Your task to perform on an android device: Show me recent news Image 0: 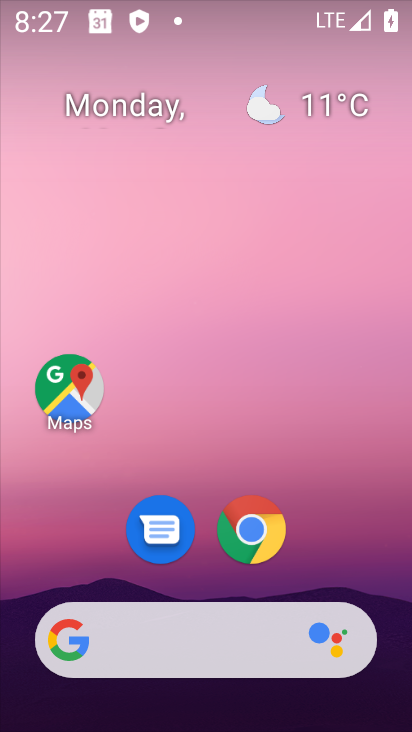
Step 0: drag from (20, 236) to (412, 156)
Your task to perform on an android device: Show me recent news Image 1: 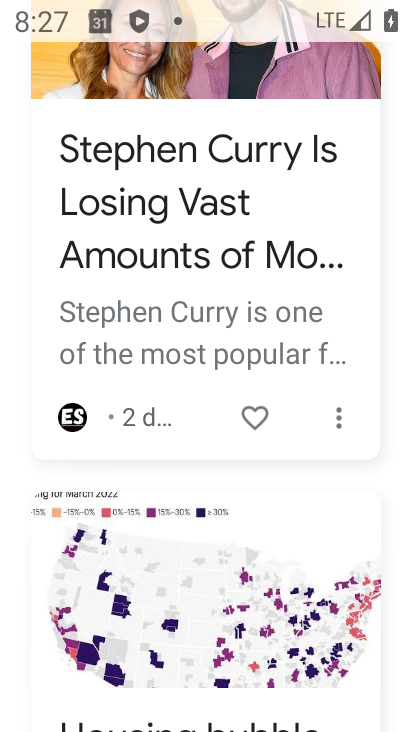
Step 1: task complete